Your task to perform on an android device: open app "Paramount+ | Peak Streaming" Image 0: 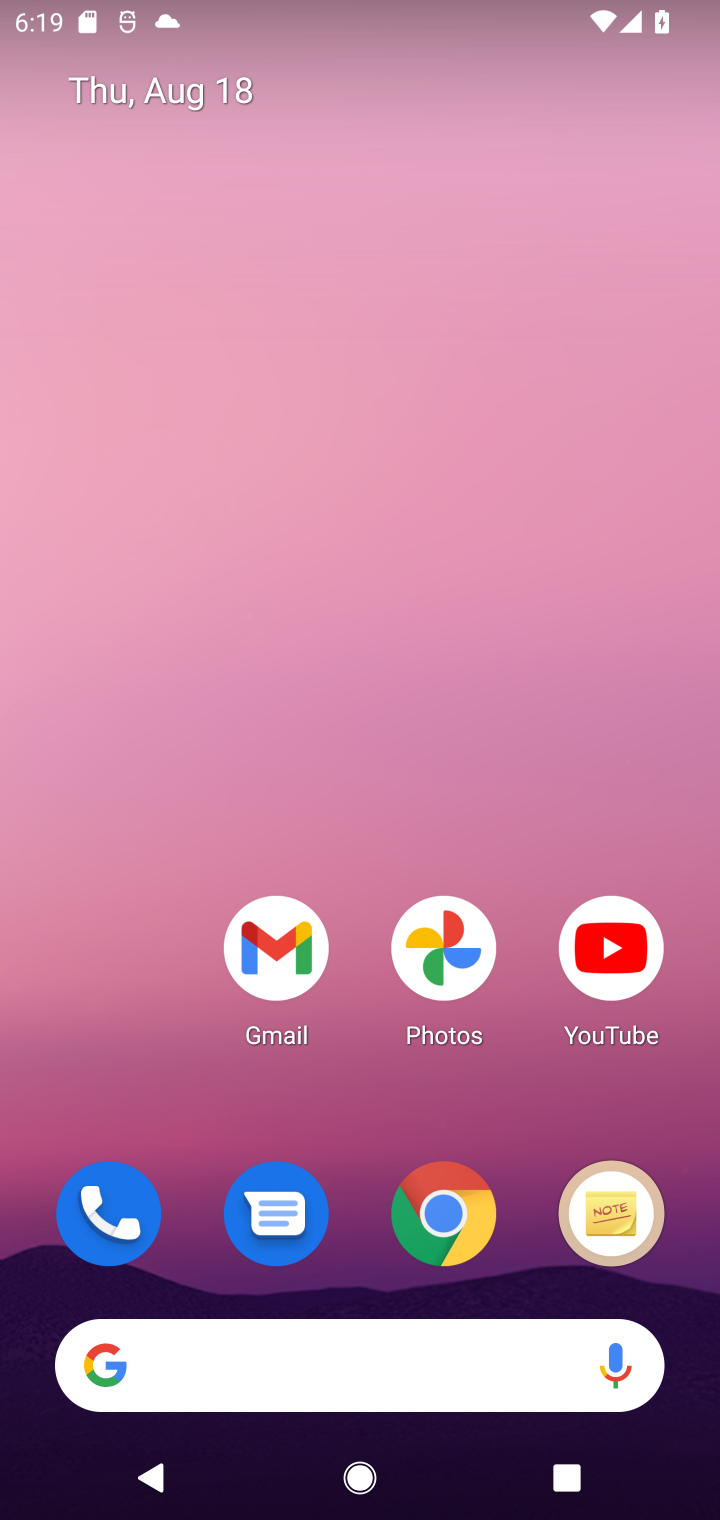
Step 0: press home button
Your task to perform on an android device: open app "Paramount+ | Peak Streaming" Image 1: 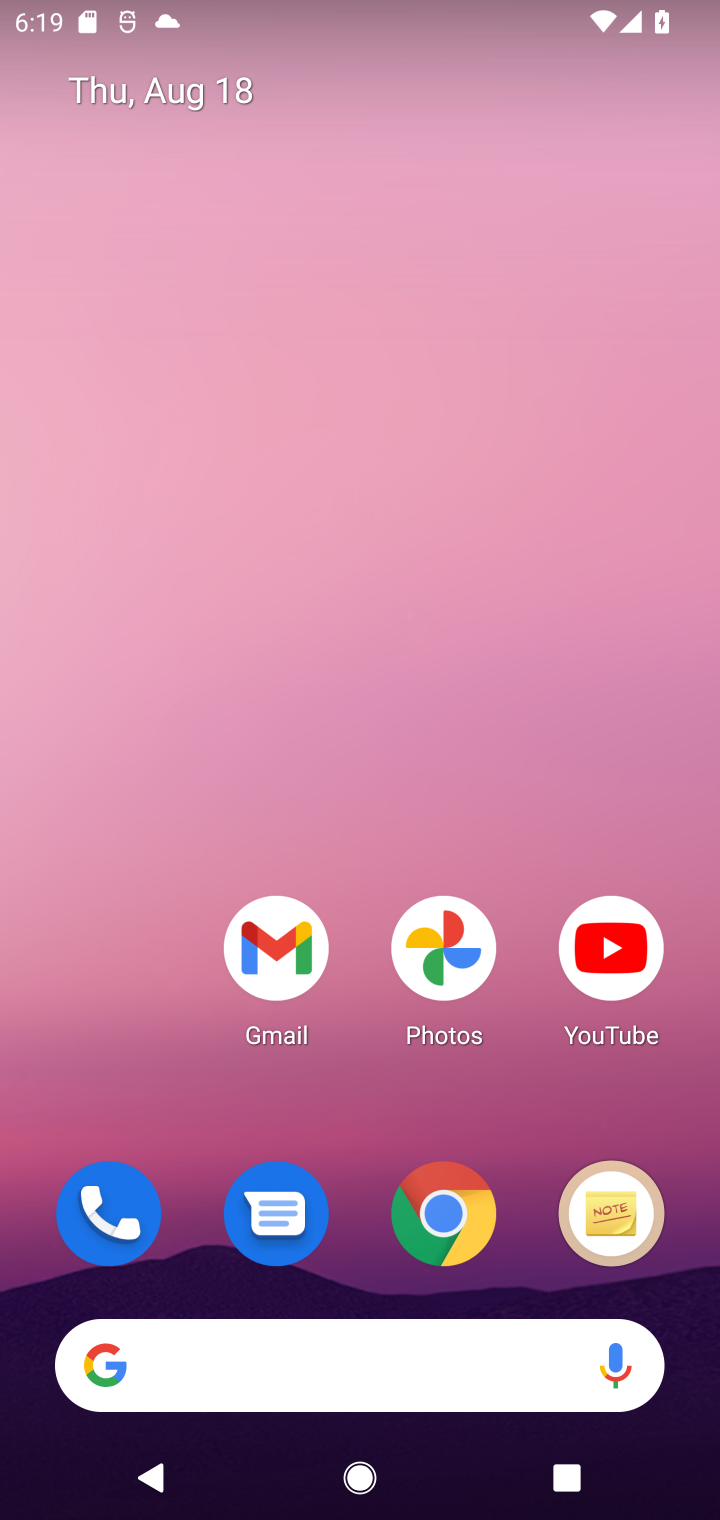
Step 1: drag from (364, 1142) to (400, 109)
Your task to perform on an android device: open app "Paramount+ | Peak Streaming" Image 2: 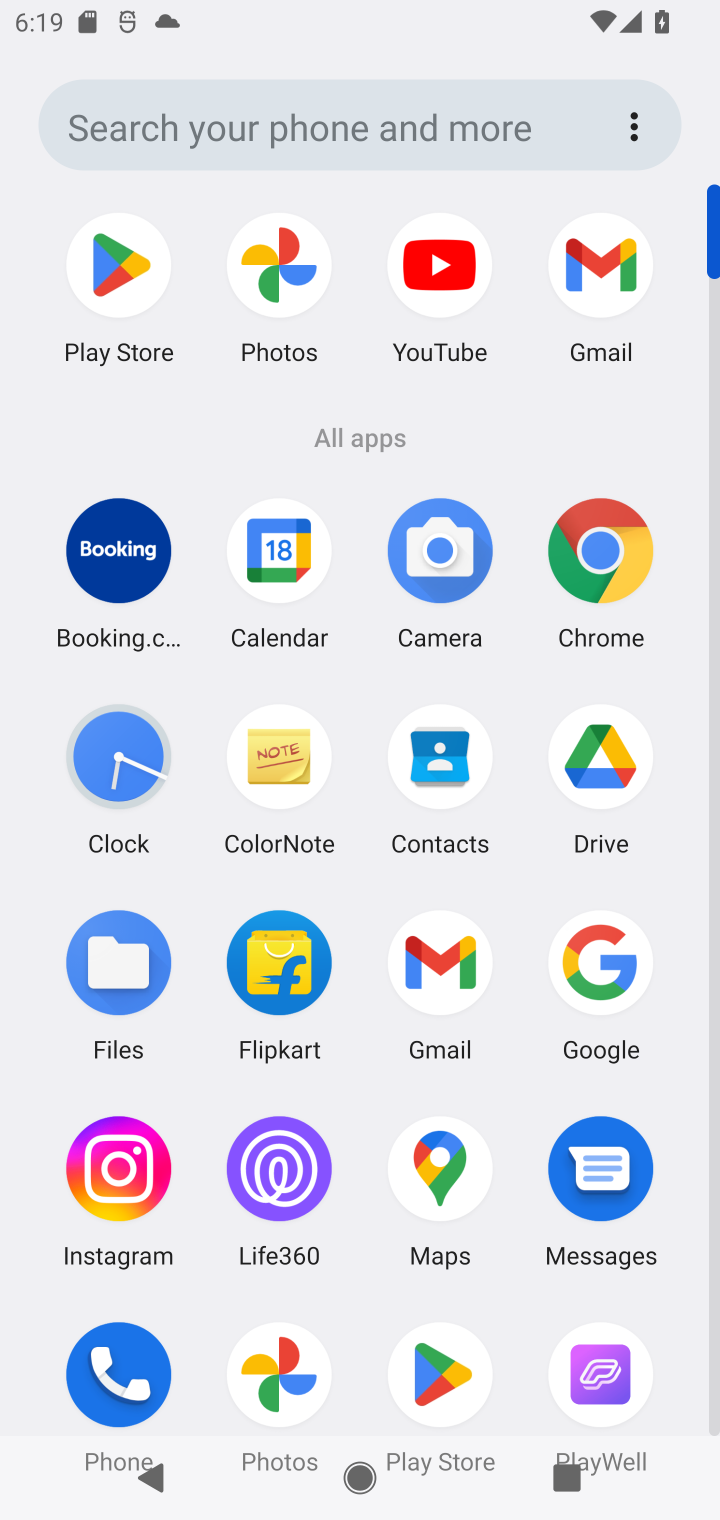
Step 2: click (109, 349)
Your task to perform on an android device: open app "Paramount+ | Peak Streaming" Image 3: 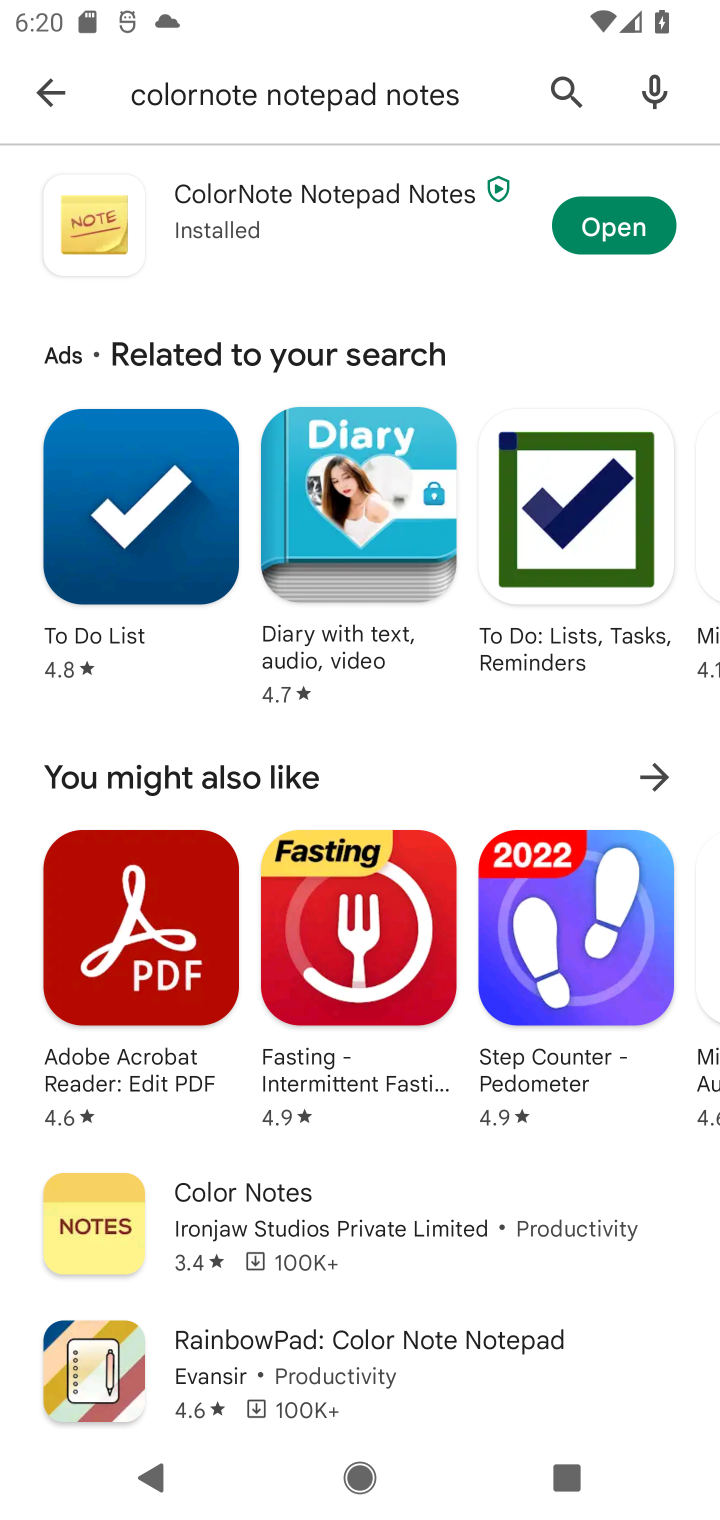
Step 3: click (559, 81)
Your task to perform on an android device: open app "Paramount+ | Peak Streaming" Image 4: 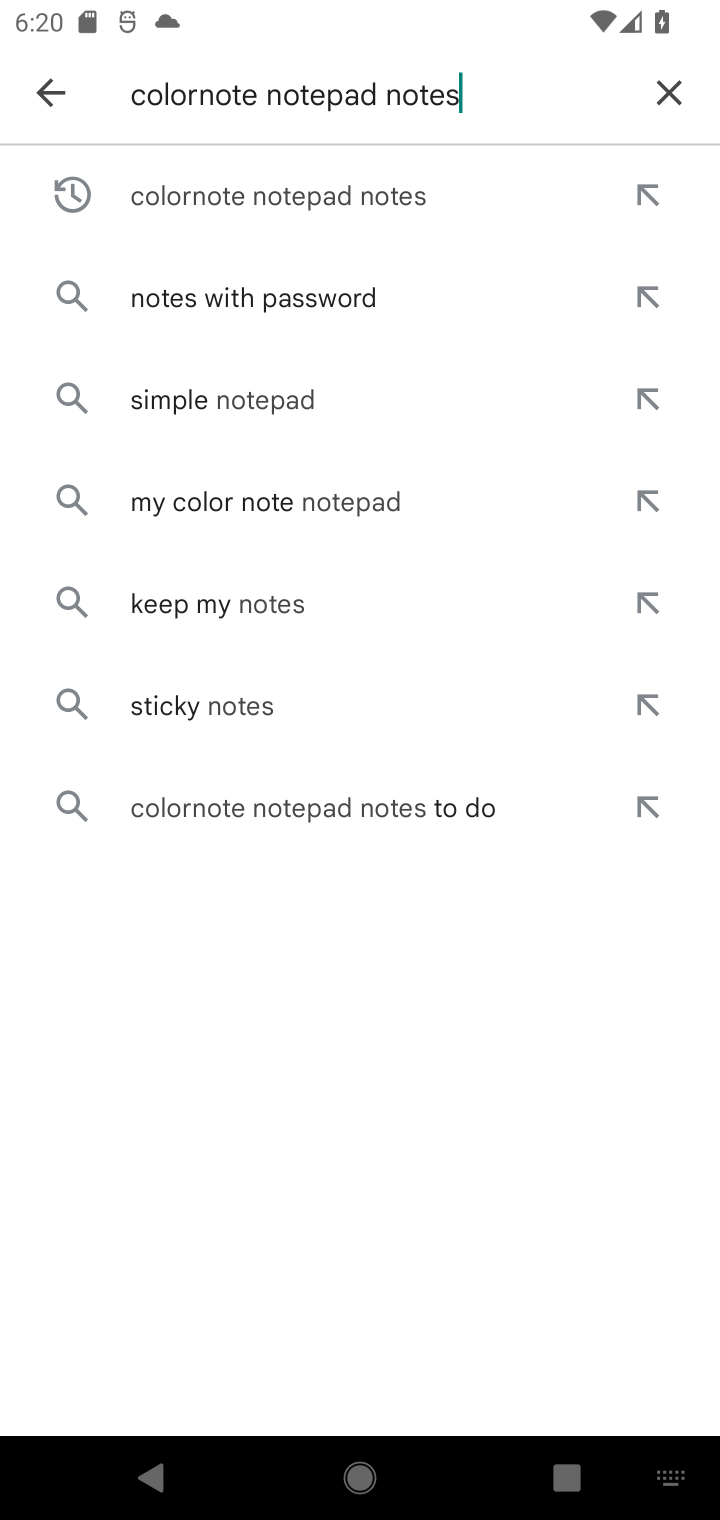
Step 4: click (647, 92)
Your task to perform on an android device: open app "Paramount+ | Peak Streaming" Image 5: 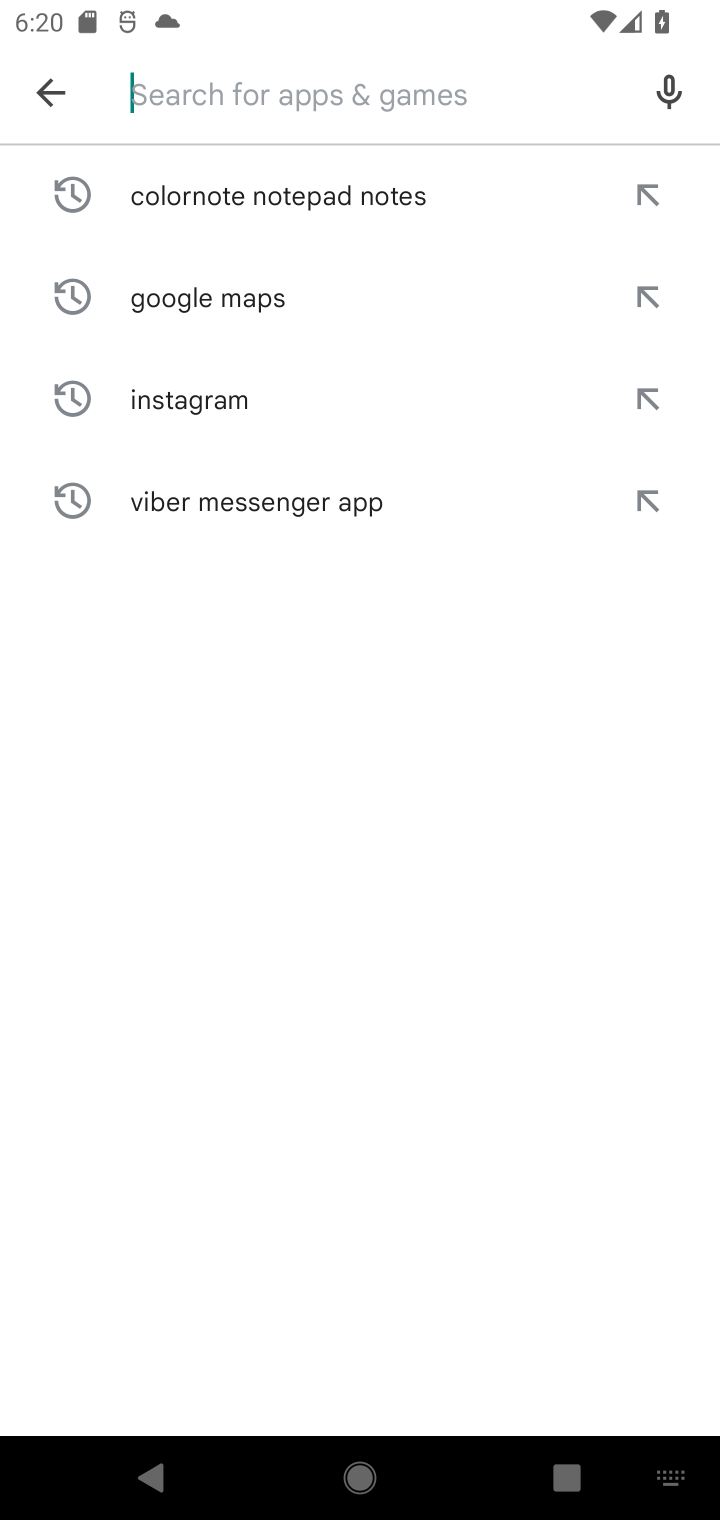
Step 5: type "Paramount+ | Peak Streaming"
Your task to perform on an android device: open app "Paramount+ | Peak Streaming" Image 6: 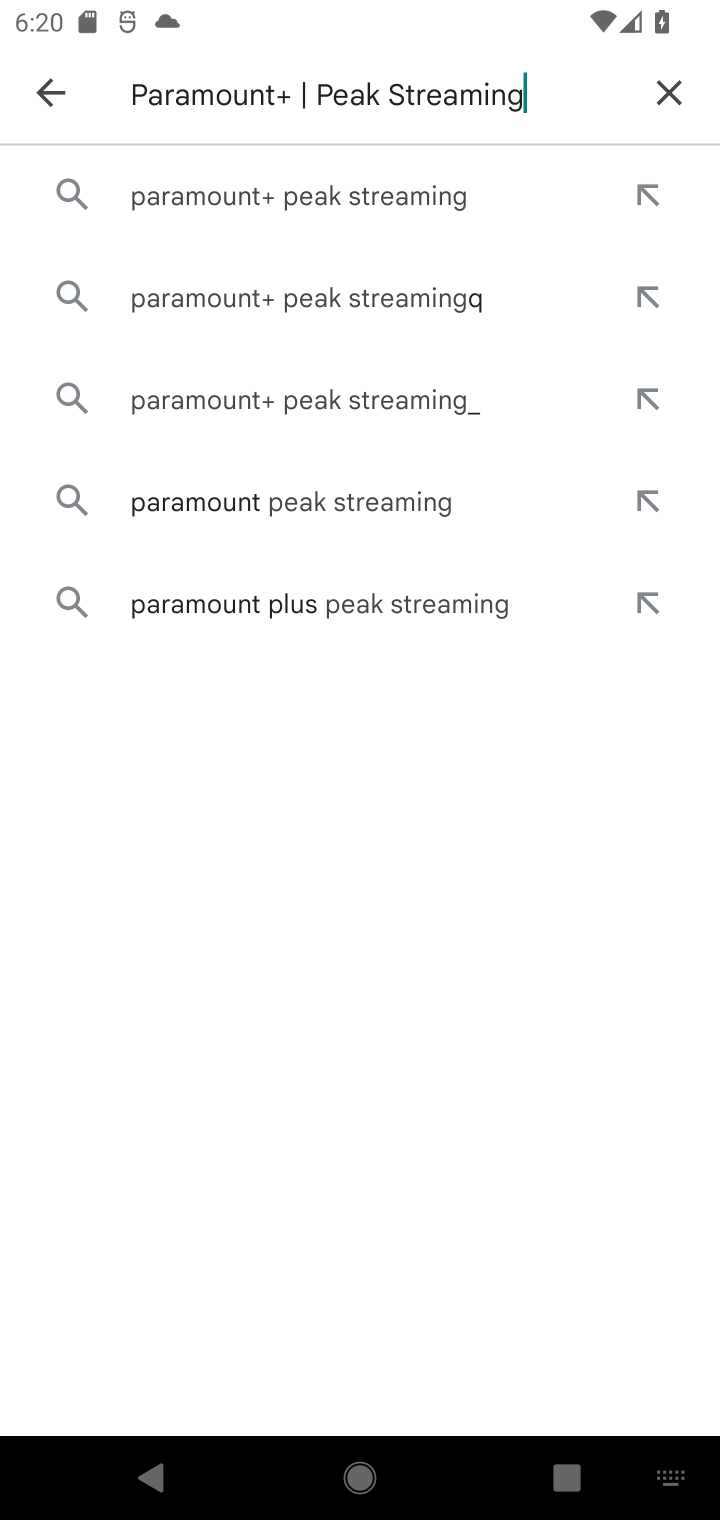
Step 6: click (334, 208)
Your task to perform on an android device: open app "Paramount+ | Peak Streaming" Image 7: 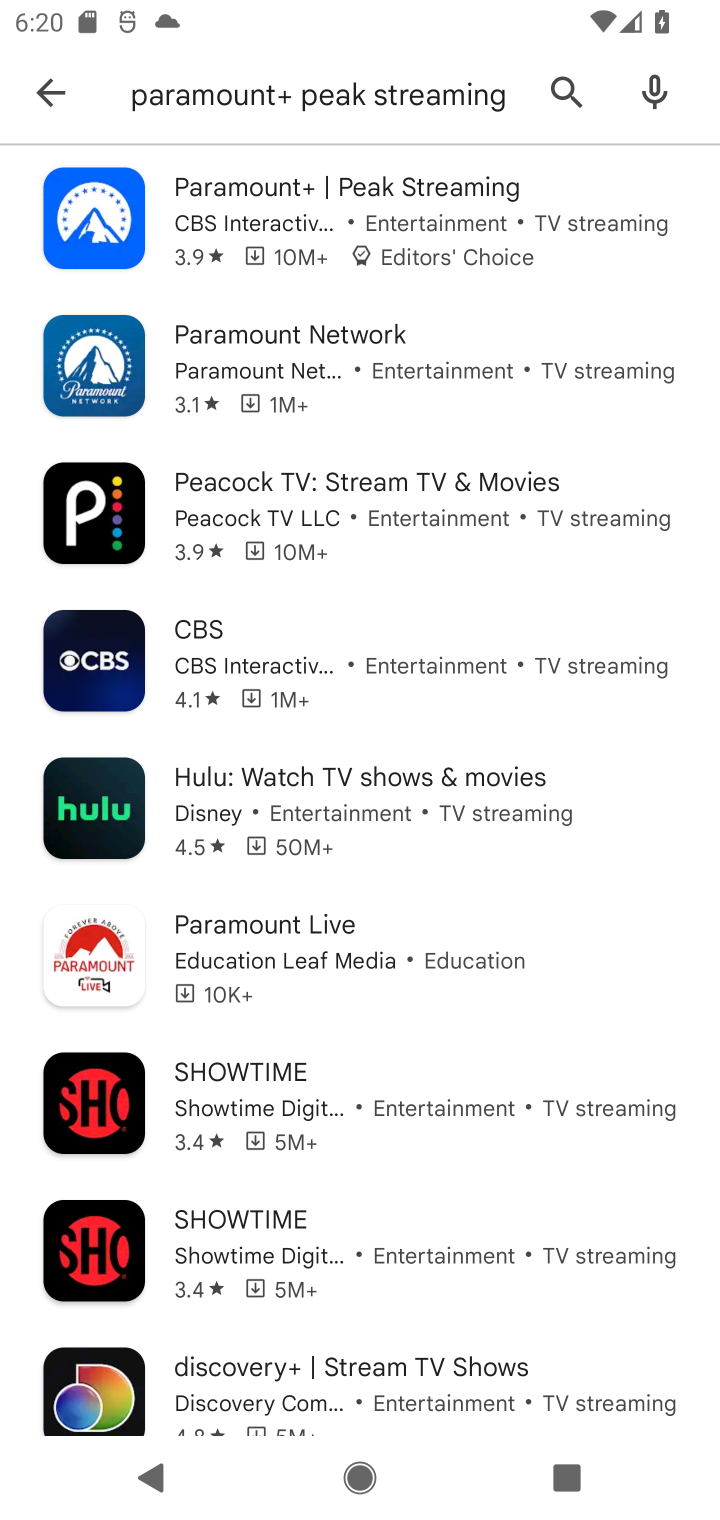
Step 7: click (343, 211)
Your task to perform on an android device: open app "Paramount+ | Peak Streaming" Image 8: 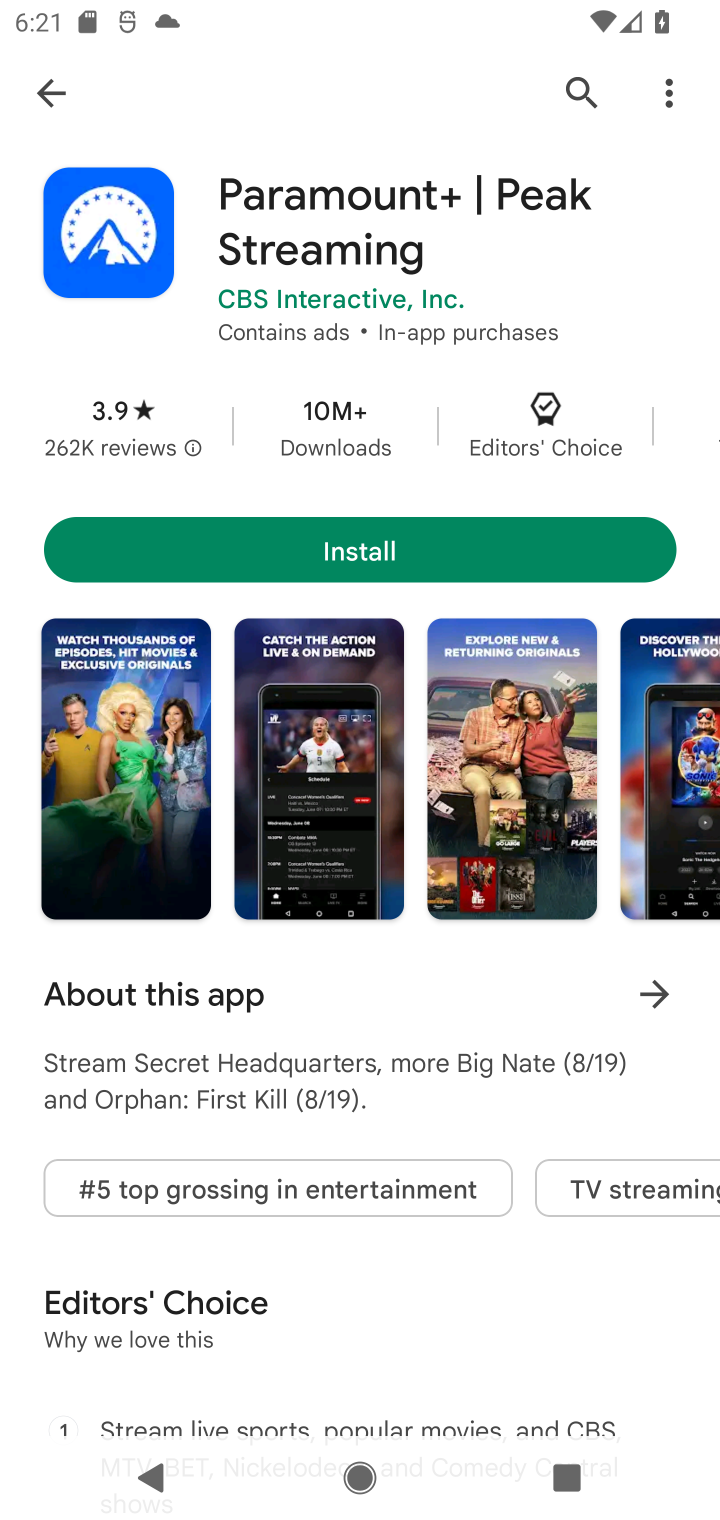
Step 8: task complete